Your task to perform on an android device: Is it going to rain this weekend? Image 0: 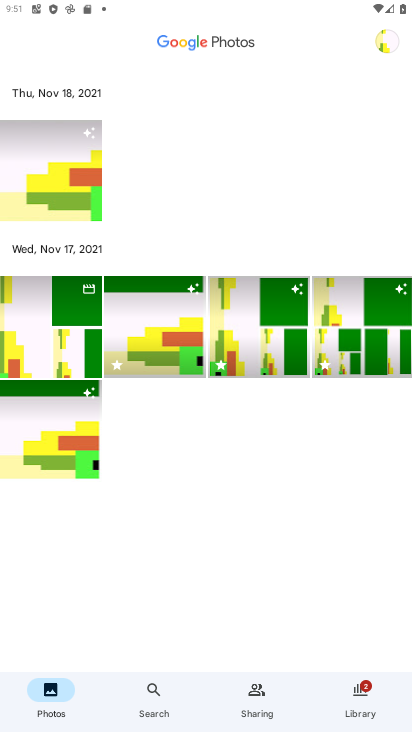
Step 0: press home button
Your task to perform on an android device: Is it going to rain this weekend? Image 1: 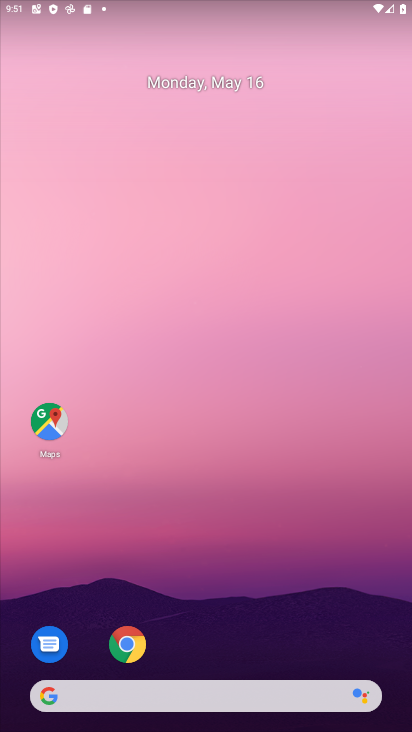
Step 1: click (32, 712)
Your task to perform on an android device: Is it going to rain this weekend? Image 2: 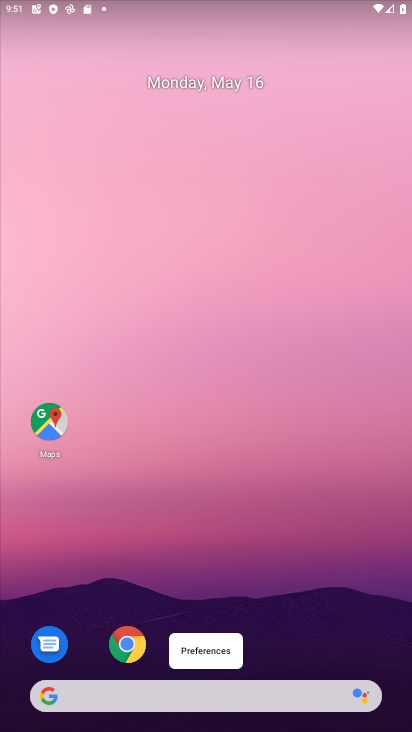
Step 2: click (230, 689)
Your task to perform on an android device: Is it going to rain this weekend? Image 3: 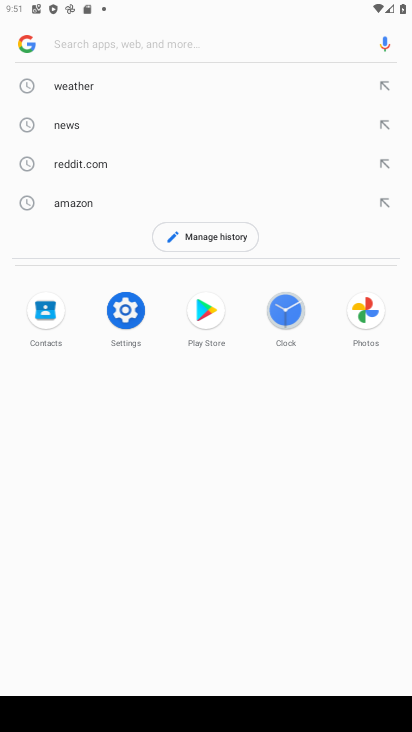
Step 3: type " Is it going to rain this weekend?"
Your task to perform on an android device: Is it going to rain this weekend? Image 4: 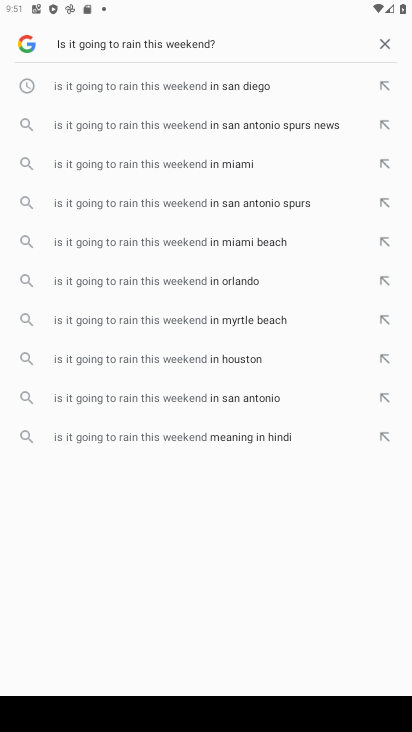
Step 4: click (292, 26)
Your task to perform on an android device: Is it going to rain this weekend? Image 5: 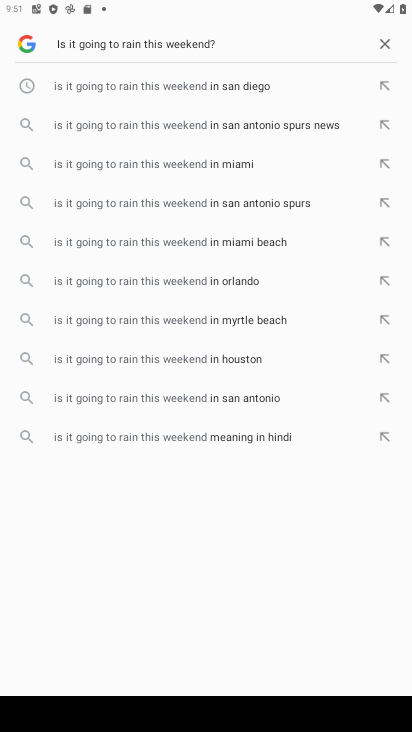
Step 5: click (289, 43)
Your task to perform on an android device: Is it going to rain this weekend? Image 6: 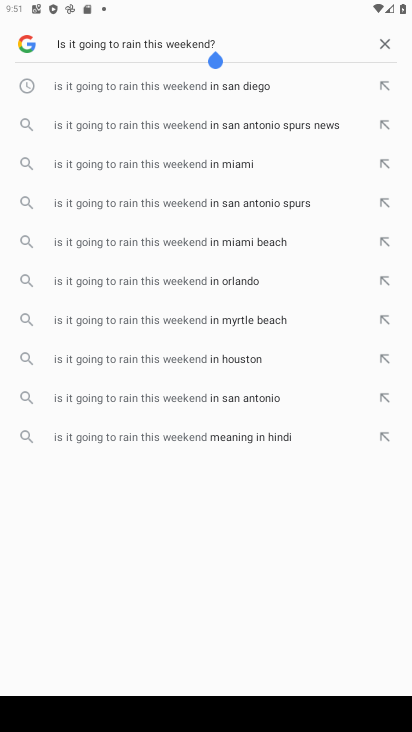
Step 6: click (388, 42)
Your task to perform on an android device: Is it going to rain this weekend? Image 7: 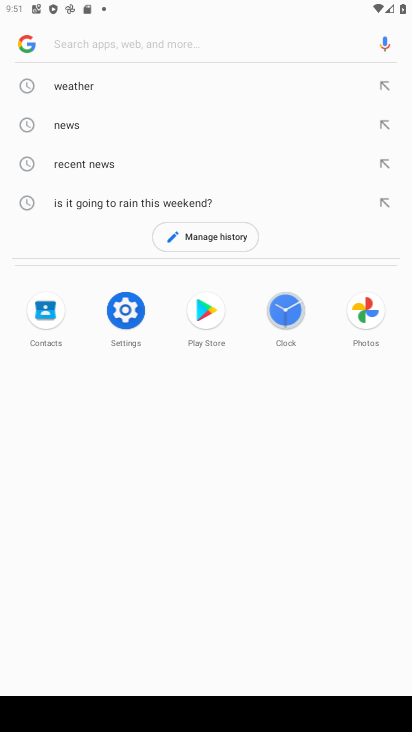
Step 7: click (238, 48)
Your task to perform on an android device: Is it going to rain this weekend? Image 8: 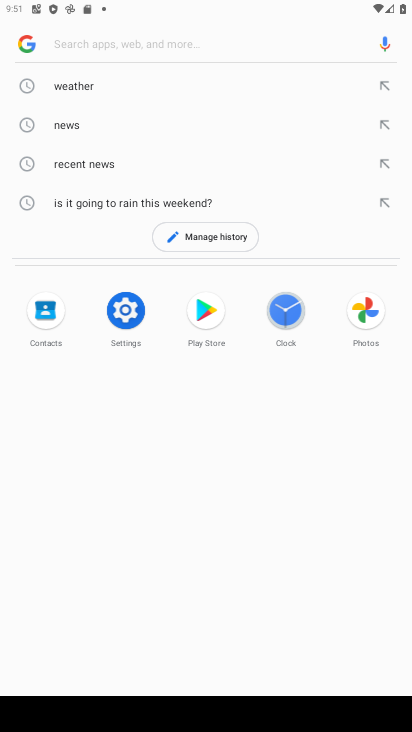
Step 8: type " Is it going to rain this weekend"
Your task to perform on an android device: Is it going to rain this weekend? Image 9: 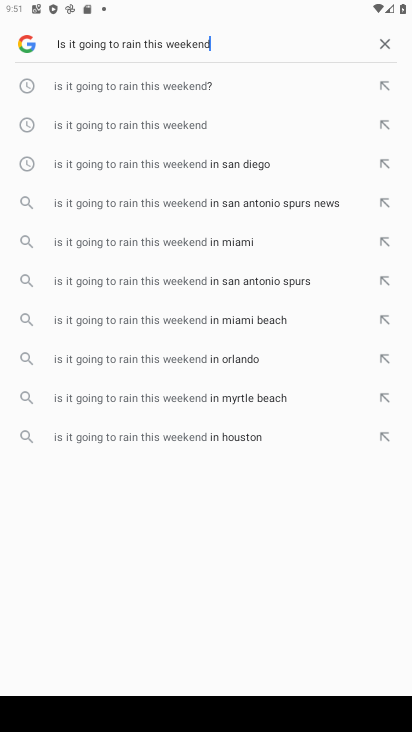
Step 9: click (227, 125)
Your task to perform on an android device: Is it going to rain this weekend? Image 10: 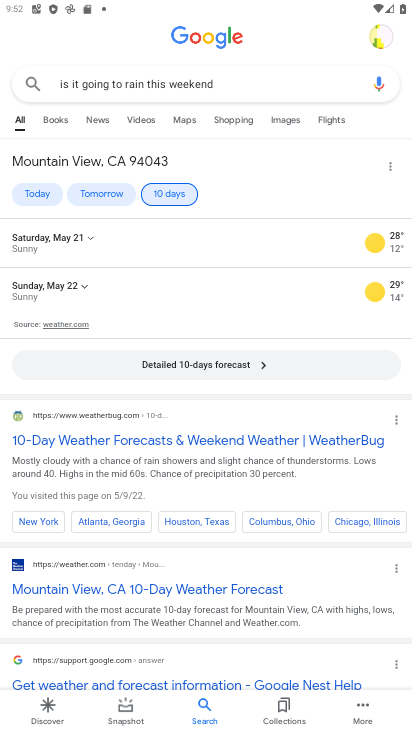
Step 10: task complete